Your task to perform on an android device: What's the weather today? Image 0: 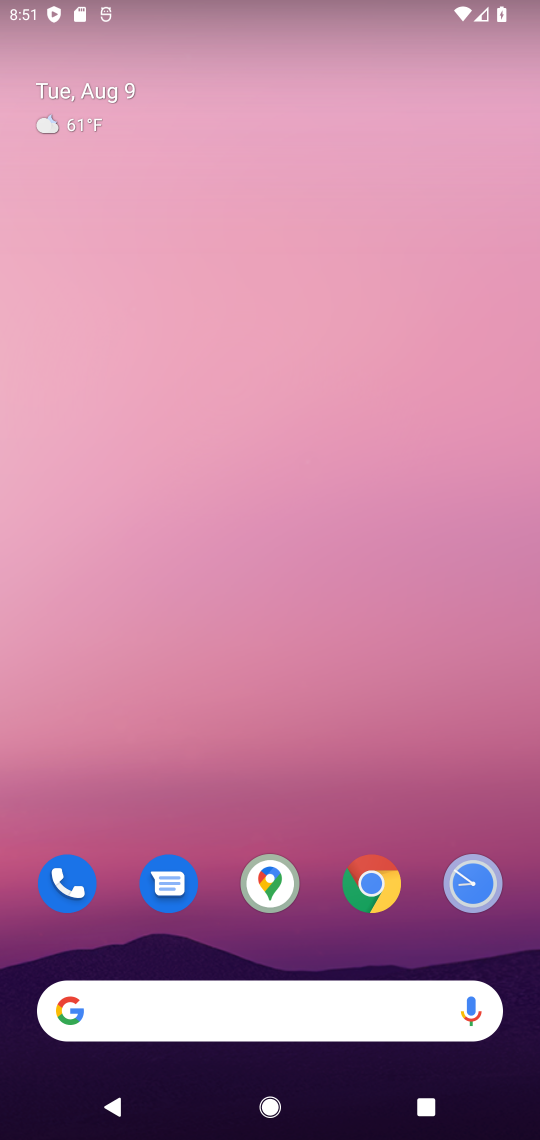
Step 0: click (53, 121)
Your task to perform on an android device: What's the weather today? Image 1: 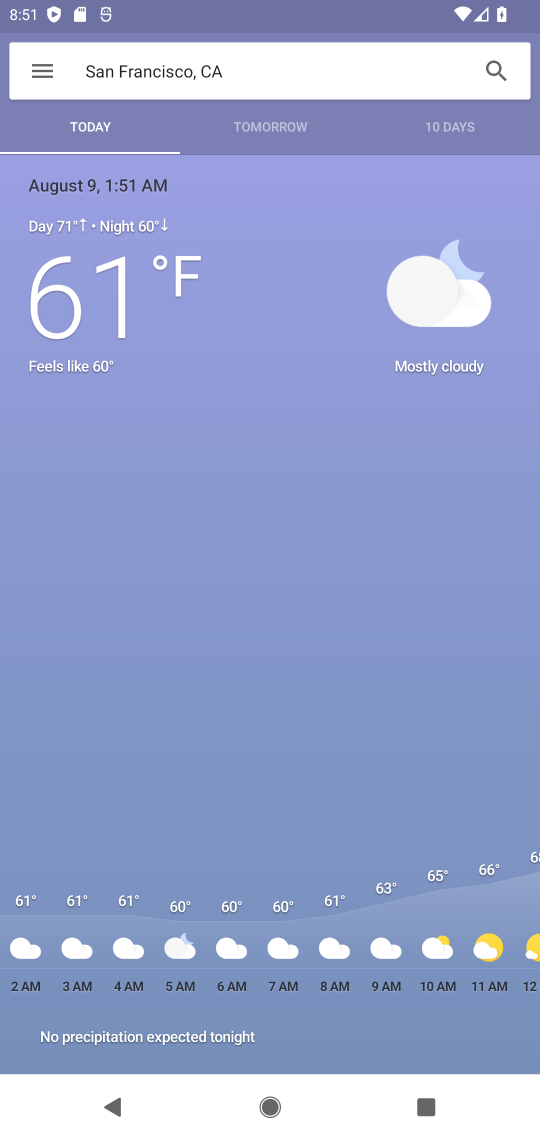
Step 1: task complete